Your task to perform on an android device: change the clock display to digital Image 0: 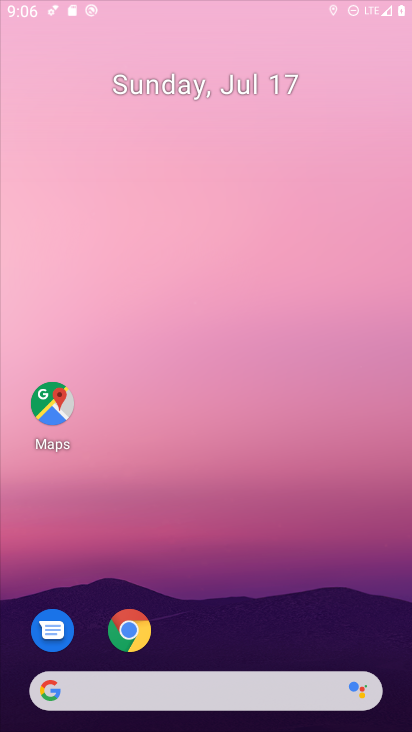
Step 0: drag from (242, 569) to (235, 159)
Your task to perform on an android device: change the clock display to digital Image 1: 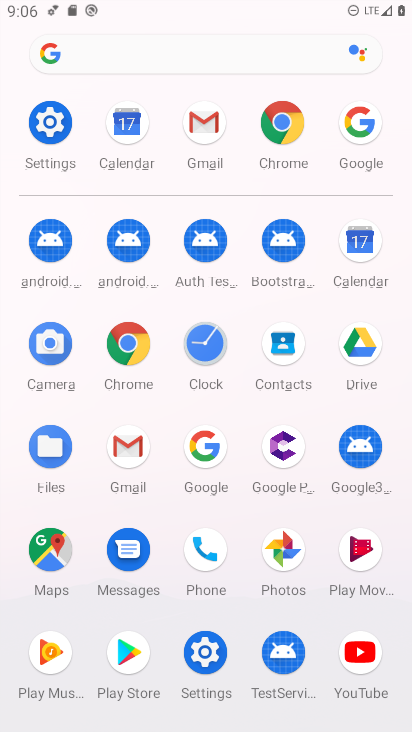
Step 1: click (206, 351)
Your task to perform on an android device: change the clock display to digital Image 2: 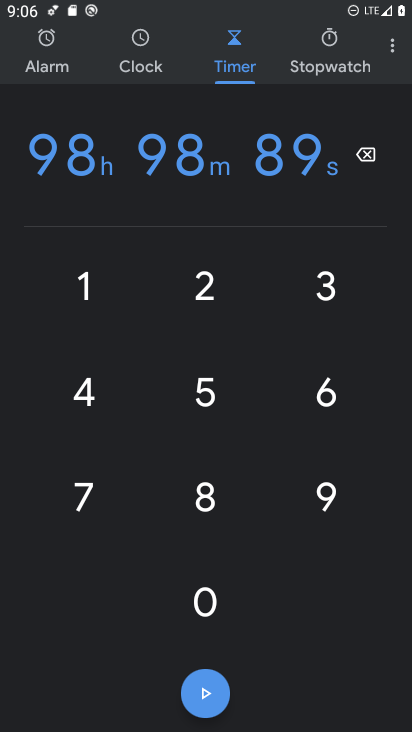
Step 2: click (396, 57)
Your task to perform on an android device: change the clock display to digital Image 3: 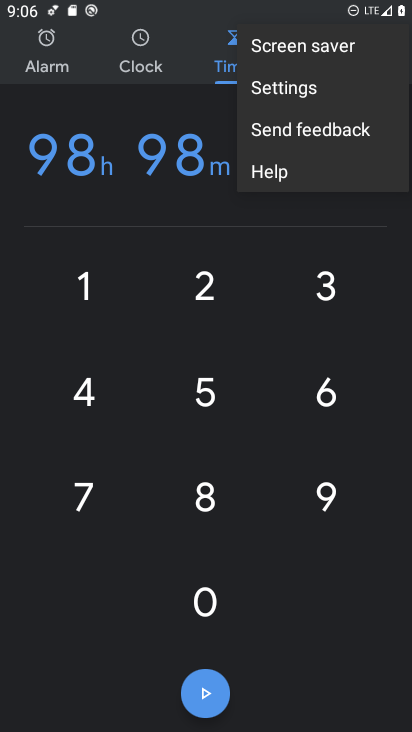
Step 3: click (340, 79)
Your task to perform on an android device: change the clock display to digital Image 4: 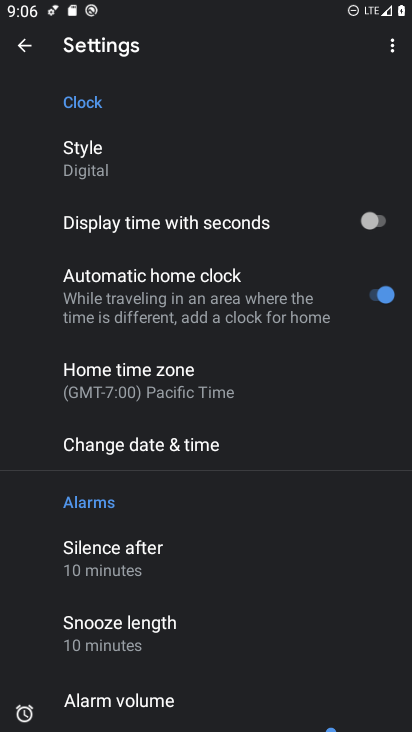
Step 4: click (162, 154)
Your task to perform on an android device: change the clock display to digital Image 5: 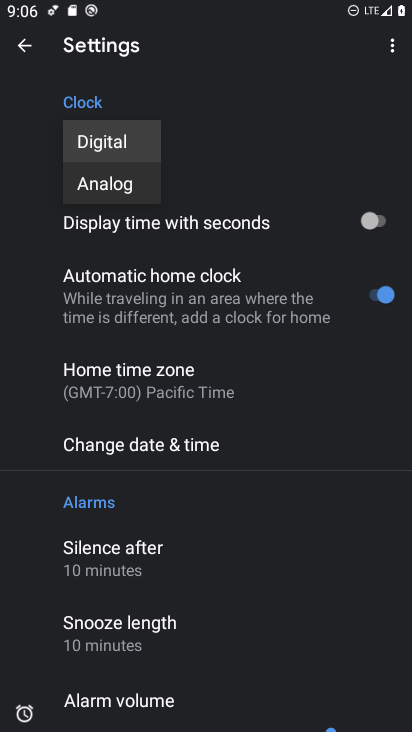
Step 5: click (116, 142)
Your task to perform on an android device: change the clock display to digital Image 6: 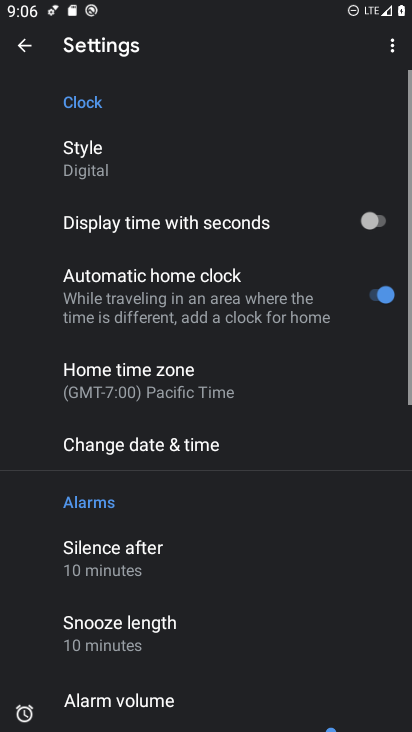
Step 6: task complete